Your task to perform on an android device: Do I have any events tomorrow? Image 0: 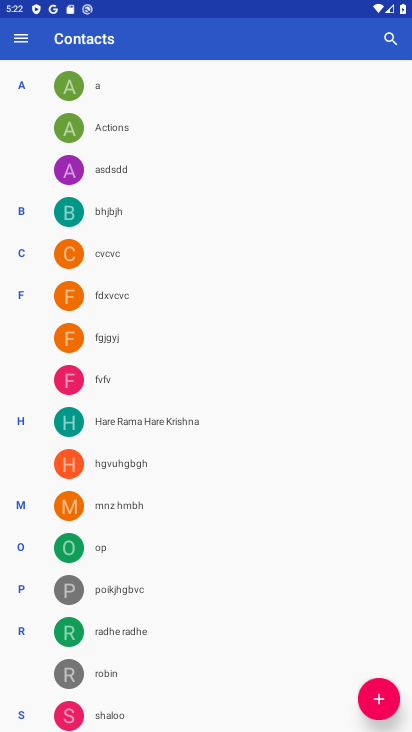
Step 0: press home button
Your task to perform on an android device: Do I have any events tomorrow? Image 1: 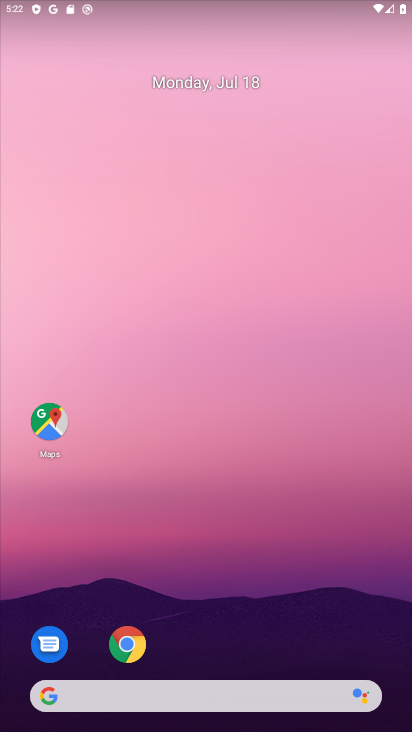
Step 1: drag from (281, 635) to (385, 165)
Your task to perform on an android device: Do I have any events tomorrow? Image 2: 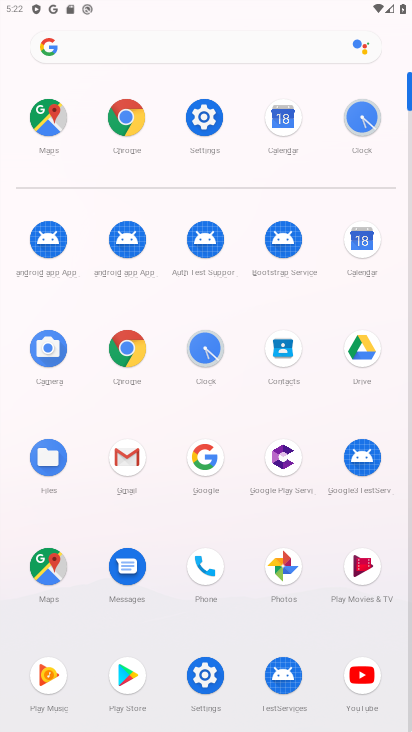
Step 2: click (367, 235)
Your task to perform on an android device: Do I have any events tomorrow? Image 3: 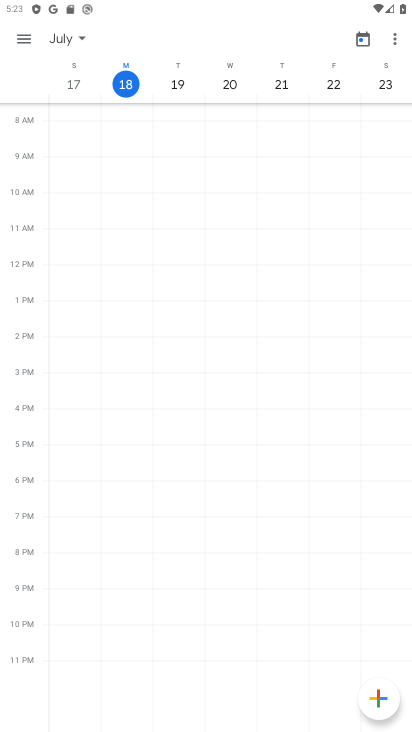
Step 3: click (30, 39)
Your task to perform on an android device: Do I have any events tomorrow? Image 4: 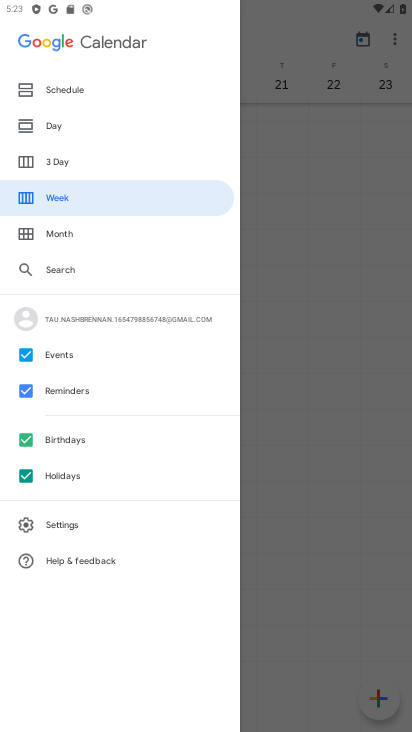
Step 4: click (60, 84)
Your task to perform on an android device: Do I have any events tomorrow? Image 5: 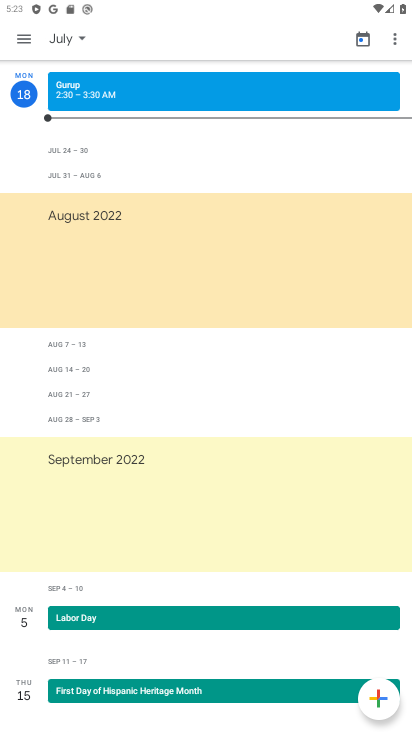
Step 5: task complete